Your task to perform on an android device: set an alarm Image 0: 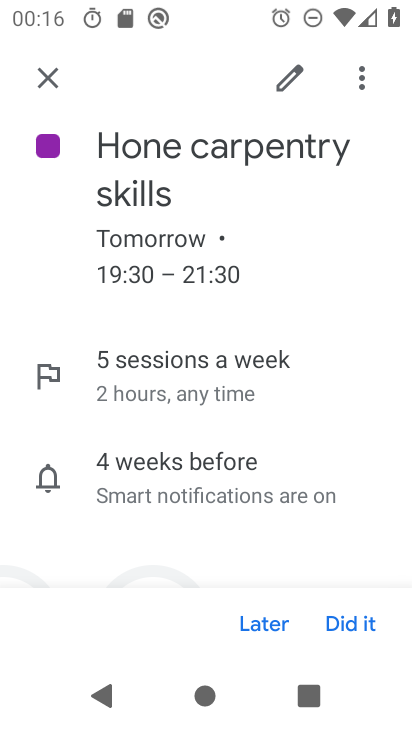
Step 0: press home button
Your task to perform on an android device: set an alarm Image 1: 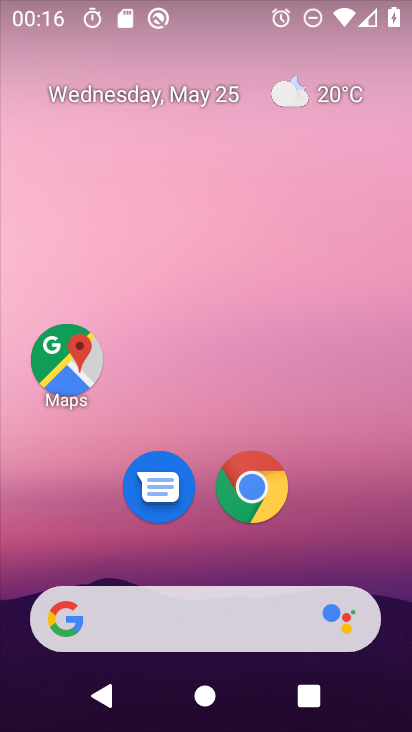
Step 1: drag from (360, 553) to (364, 9)
Your task to perform on an android device: set an alarm Image 2: 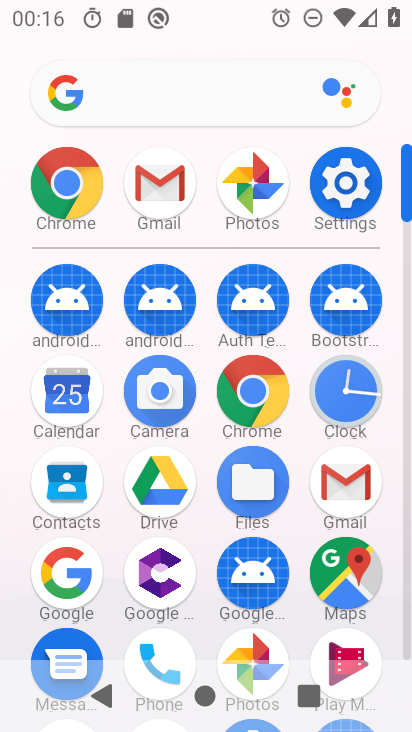
Step 2: click (347, 399)
Your task to perform on an android device: set an alarm Image 3: 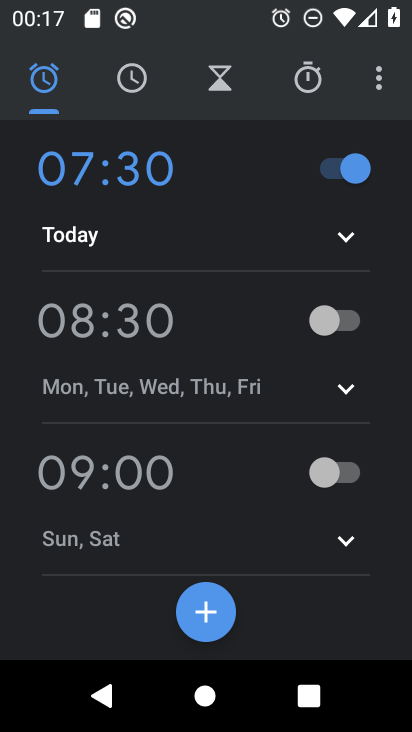
Step 3: click (207, 627)
Your task to perform on an android device: set an alarm Image 4: 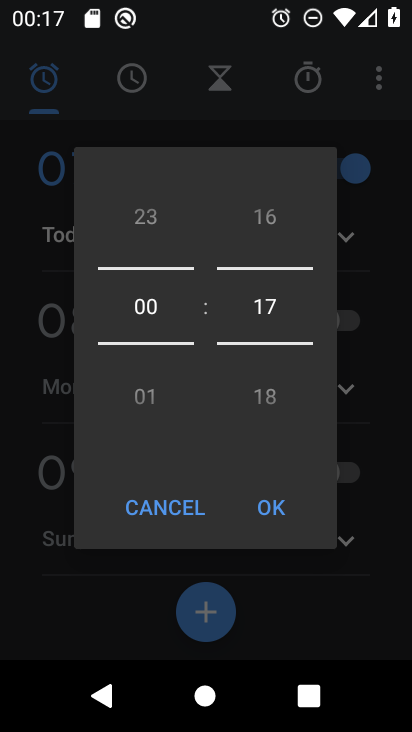
Step 4: drag from (147, 373) to (130, 130)
Your task to perform on an android device: set an alarm Image 5: 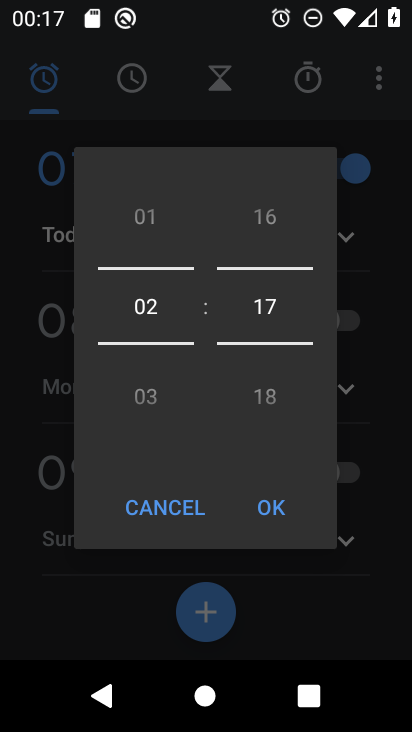
Step 5: drag from (144, 381) to (139, 274)
Your task to perform on an android device: set an alarm Image 6: 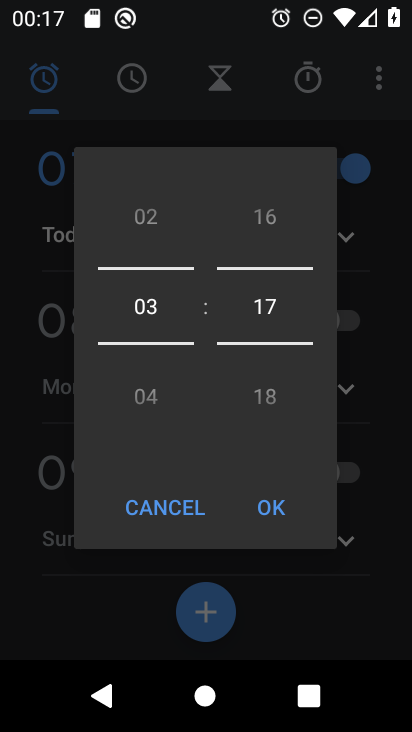
Step 6: drag from (266, 312) to (273, 181)
Your task to perform on an android device: set an alarm Image 7: 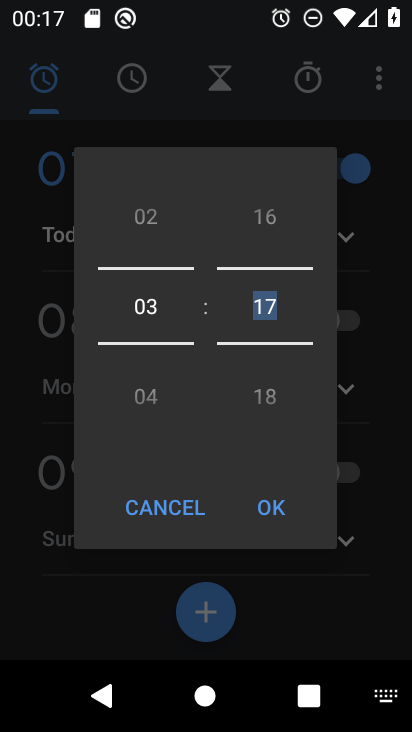
Step 7: drag from (263, 328) to (258, 216)
Your task to perform on an android device: set an alarm Image 8: 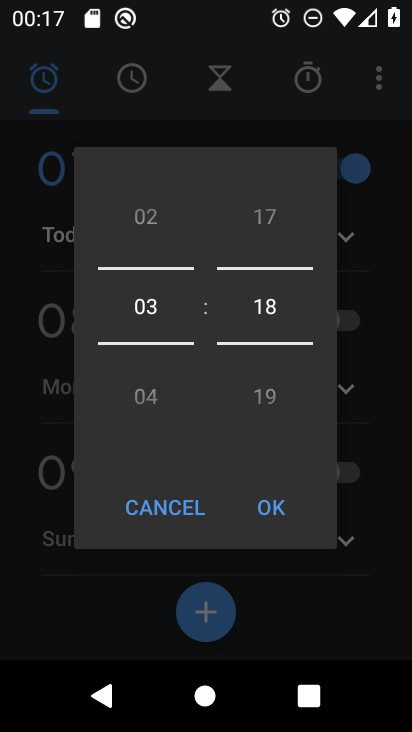
Step 8: drag from (258, 356) to (273, 106)
Your task to perform on an android device: set an alarm Image 9: 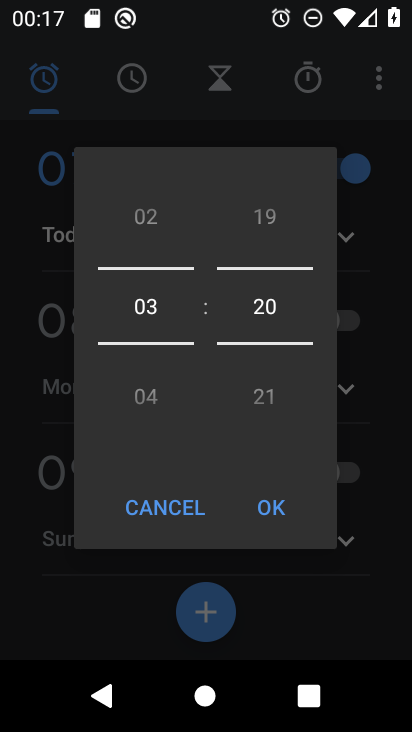
Step 9: drag from (250, 393) to (262, 264)
Your task to perform on an android device: set an alarm Image 10: 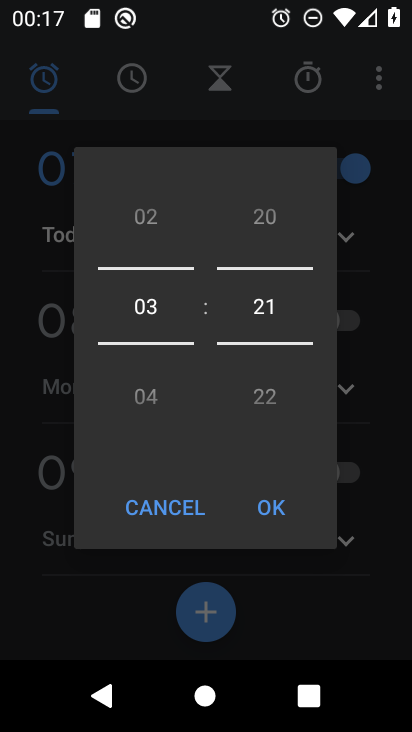
Step 10: drag from (144, 400) to (157, 301)
Your task to perform on an android device: set an alarm Image 11: 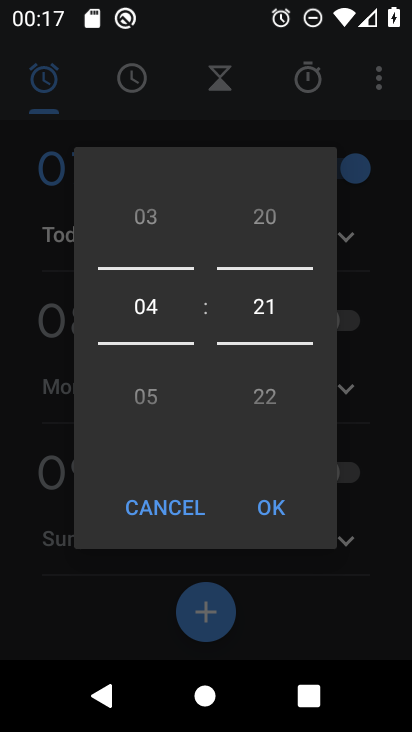
Step 11: click (268, 505)
Your task to perform on an android device: set an alarm Image 12: 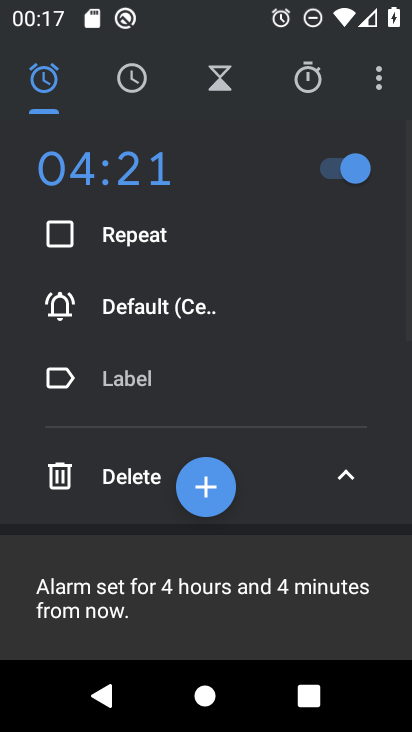
Step 12: task complete